Your task to perform on an android device: set the stopwatch Image 0: 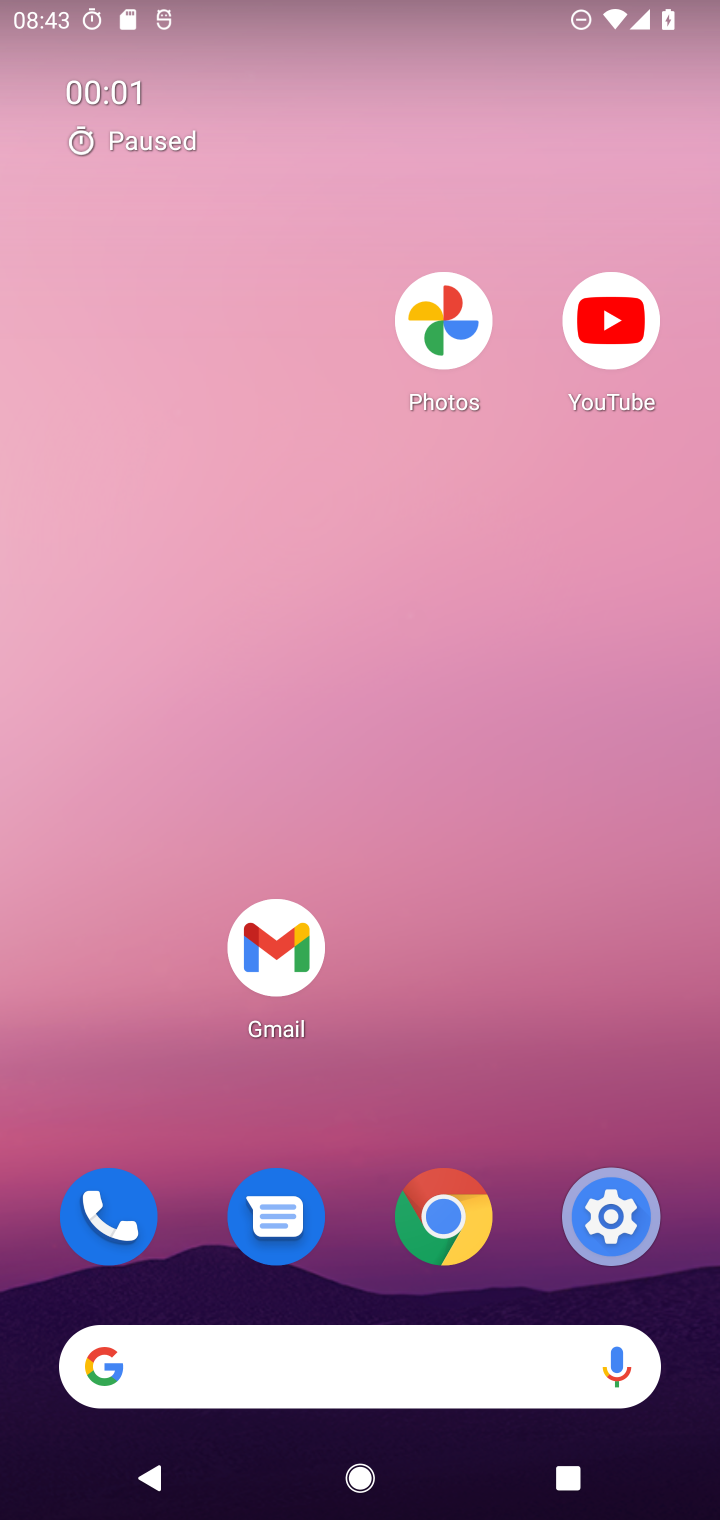
Step 0: drag from (506, 1088) to (473, 1)
Your task to perform on an android device: set the stopwatch Image 1: 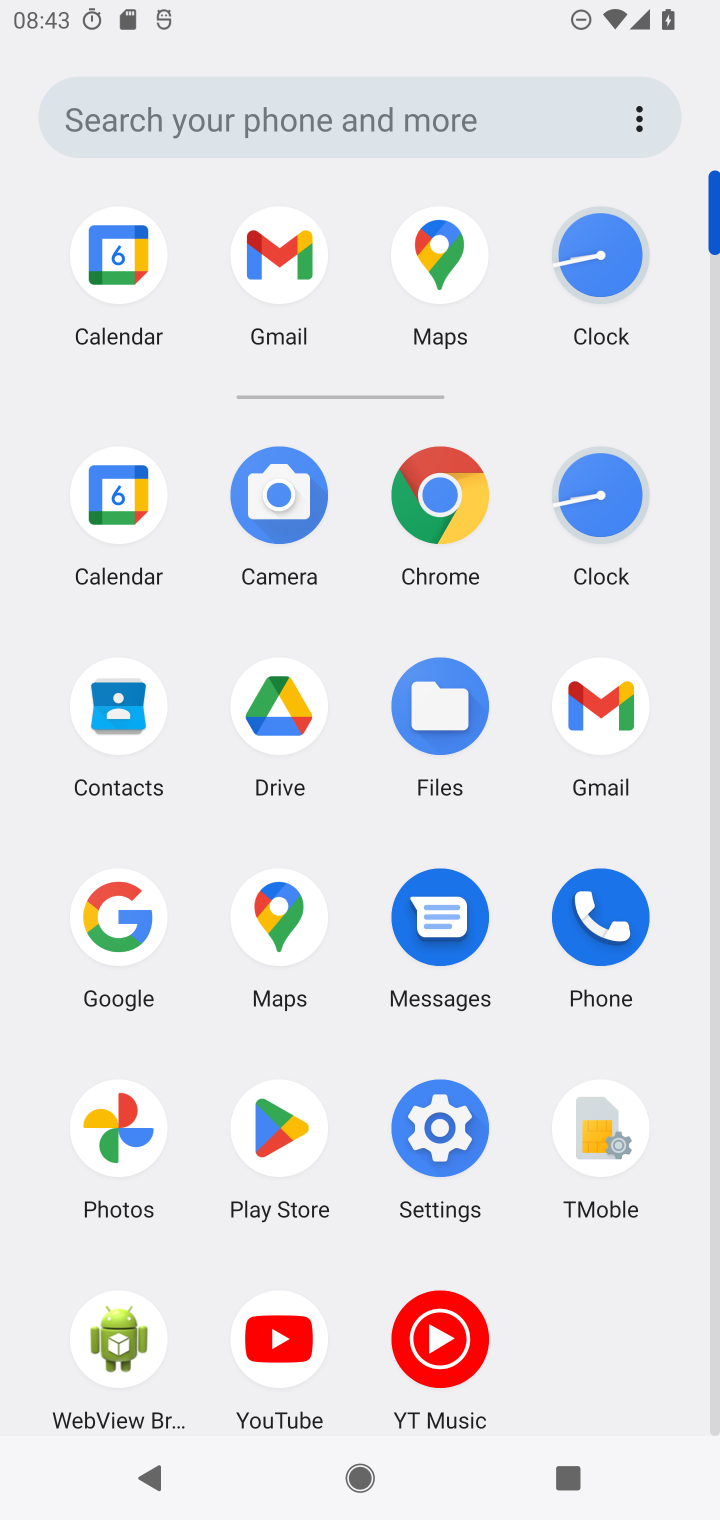
Step 1: click (595, 522)
Your task to perform on an android device: set the stopwatch Image 2: 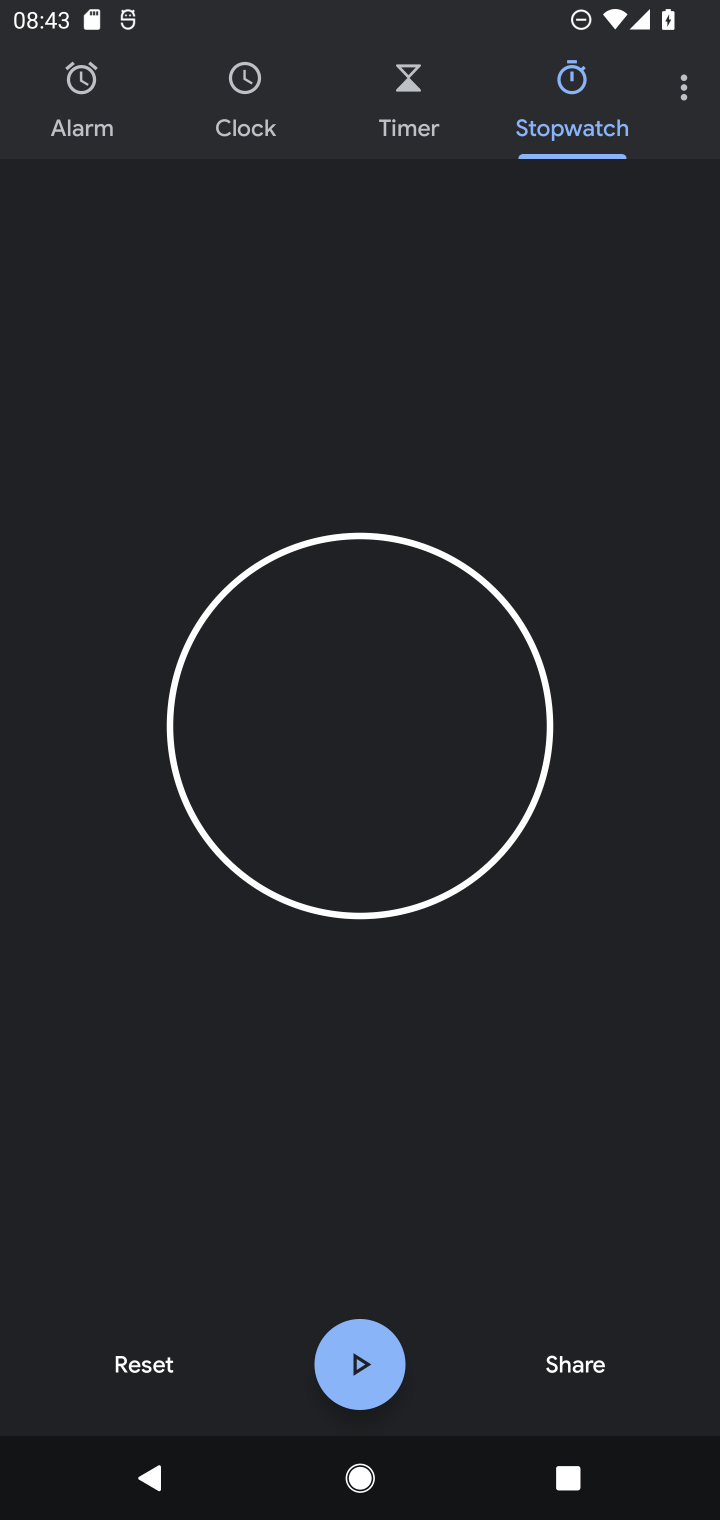
Step 2: task complete